Your task to perform on an android device: Do I have any events tomorrow? Image 0: 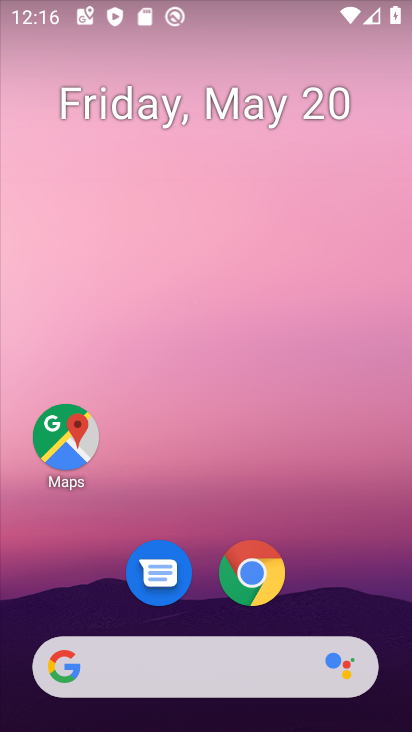
Step 0: drag from (343, 602) to (263, 53)
Your task to perform on an android device: Do I have any events tomorrow? Image 1: 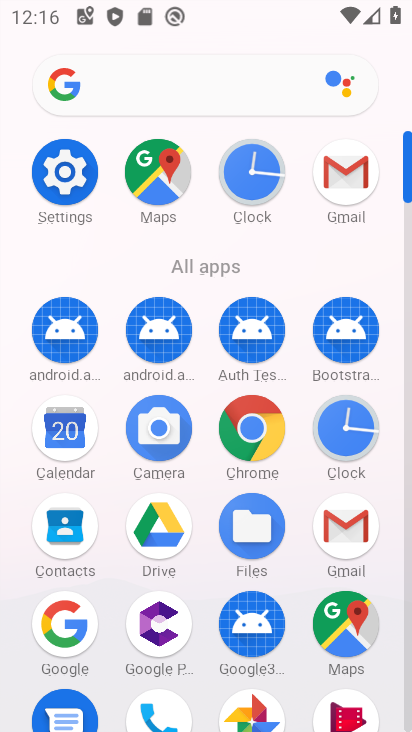
Step 1: click (59, 421)
Your task to perform on an android device: Do I have any events tomorrow? Image 2: 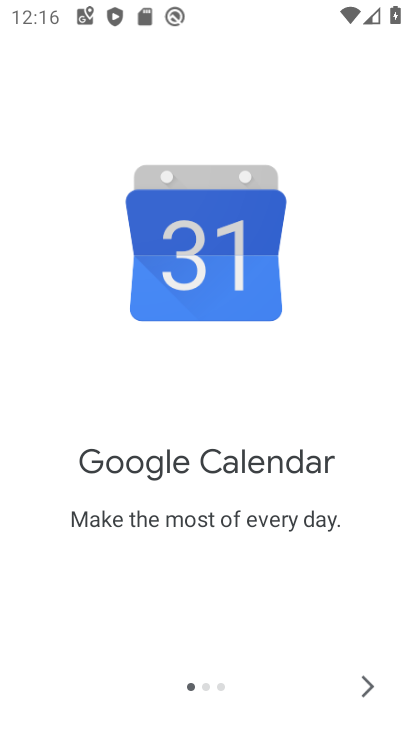
Step 2: click (366, 692)
Your task to perform on an android device: Do I have any events tomorrow? Image 3: 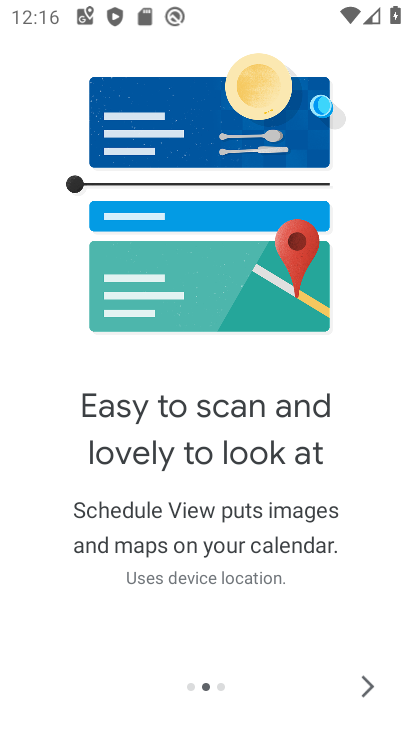
Step 3: click (369, 690)
Your task to perform on an android device: Do I have any events tomorrow? Image 4: 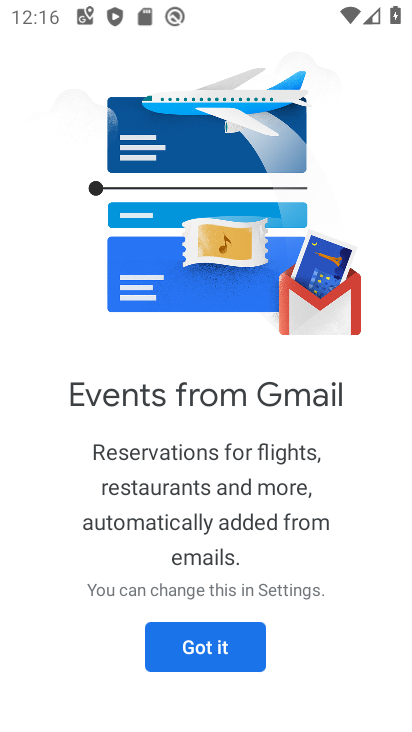
Step 4: click (242, 653)
Your task to perform on an android device: Do I have any events tomorrow? Image 5: 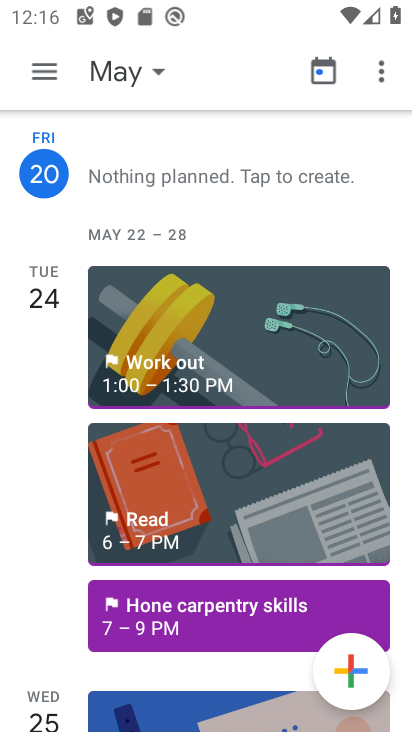
Step 5: click (99, 90)
Your task to perform on an android device: Do I have any events tomorrow? Image 6: 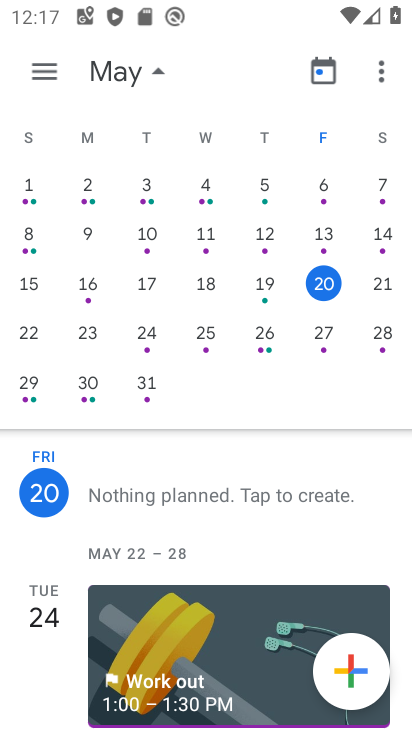
Step 6: click (386, 284)
Your task to perform on an android device: Do I have any events tomorrow? Image 7: 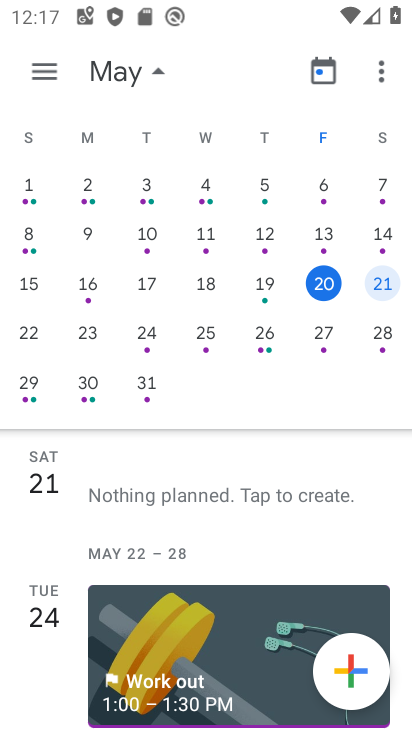
Step 7: task complete